Your task to perform on an android device: remove spam from my inbox in the gmail app Image 0: 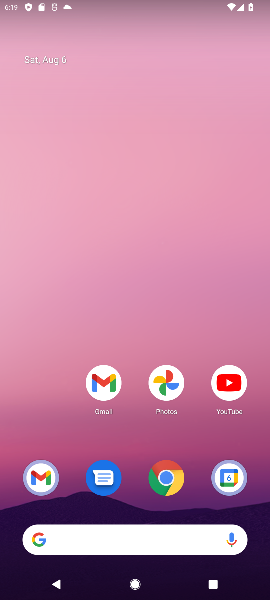
Step 0: press home button
Your task to perform on an android device: remove spam from my inbox in the gmail app Image 1: 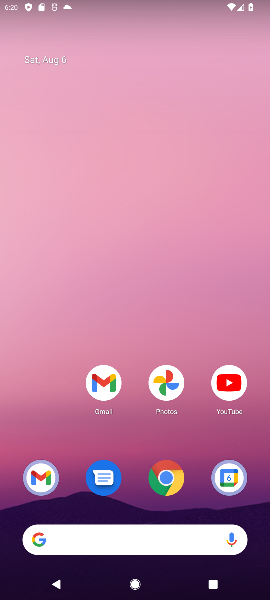
Step 1: click (138, 306)
Your task to perform on an android device: remove spam from my inbox in the gmail app Image 2: 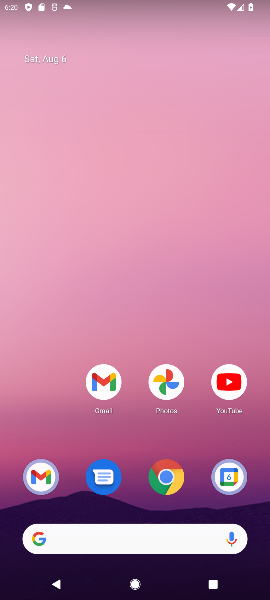
Step 2: press home button
Your task to perform on an android device: remove spam from my inbox in the gmail app Image 3: 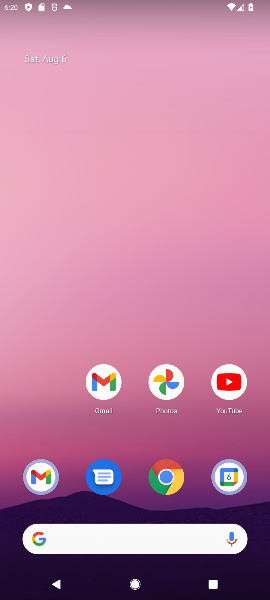
Step 3: click (209, 401)
Your task to perform on an android device: remove spam from my inbox in the gmail app Image 4: 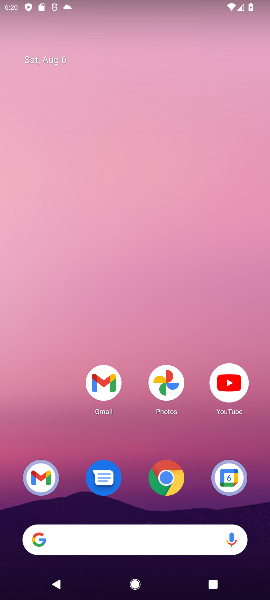
Step 4: drag from (109, 329) to (86, 0)
Your task to perform on an android device: remove spam from my inbox in the gmail app Image 5: 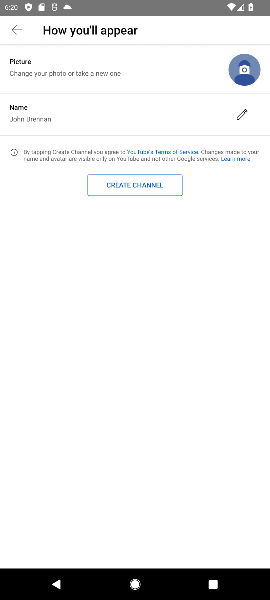
Step 5: click (12, 27)
Your task to perform on an android device: remove spam from my inbox in the gmail app Image 6: 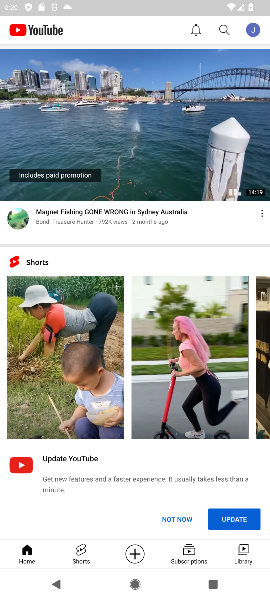
Step 6: press home button
Your task to perform on an android device: remove spam from my inbox in the gmail app Image 7: 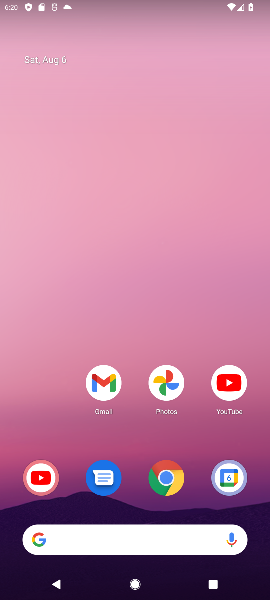
Step 7: click (49, 413)
Your task to perform on an android device: remove spam from my inbox in the gmail app Image 8: 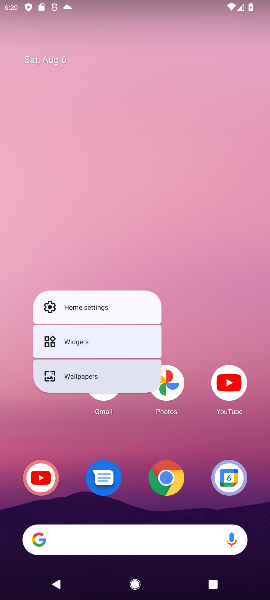
Step 8: click (105, 400)
Your task to perform on an android device: remove spam from my inbox in the gmail app Image 9: 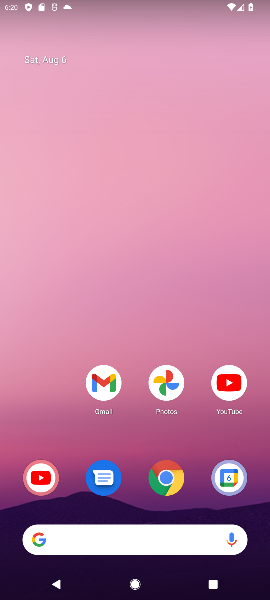
Step 9: click (104, 389)
Your task to perform on an android device: remove spam from my inbox in the gmail app Image 10: 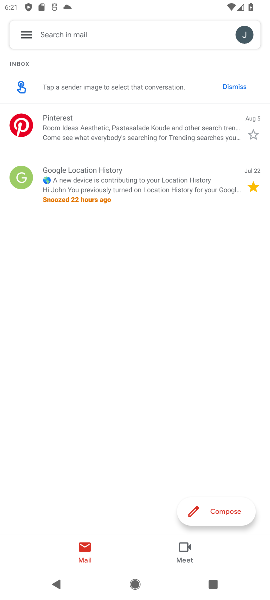
Step 10: click (16, 29)
Your task to perform on an android device: remove spam from my inbox in the gmail app Image 11: 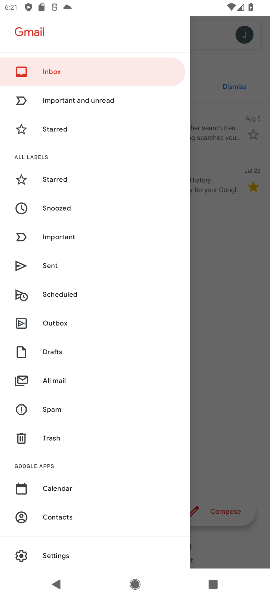
Step 11: click (230, 393)
Your task to perform on an android device: remove spam from my inbox in the gmail app Image 12: 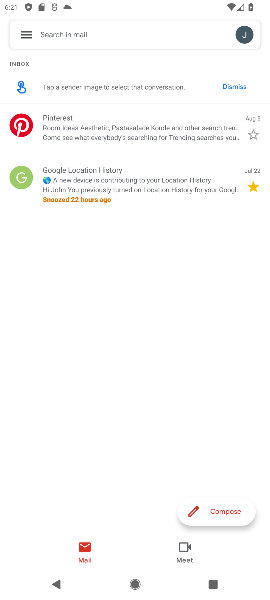
Step 12: click (24, 35)
Your task to perform on an android device: remove spam from my inbox in the gmail app Image 13: 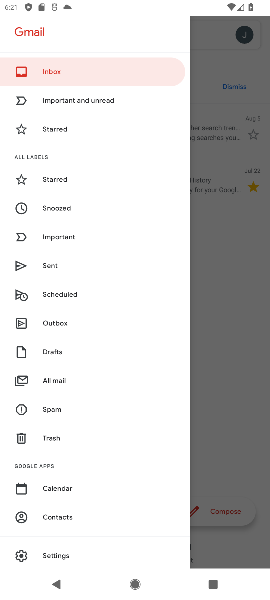
Step 13: click (46, 76)
Your task to perform on an android device: remove spam from my inbox in the gmail app Image 14: 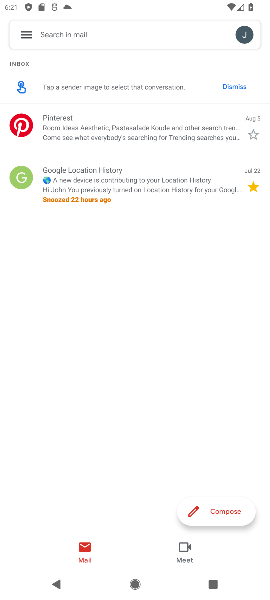
Step 14: click (244, 364)
Your task to perform on an android device: remove spam from my inbox in the gmail app Image 15: 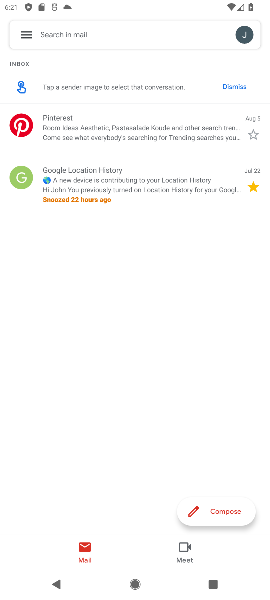
Step 15: click (24, 37)
Your task to perform on an android device: remove spam from my inbox in the gmail app Image 16: 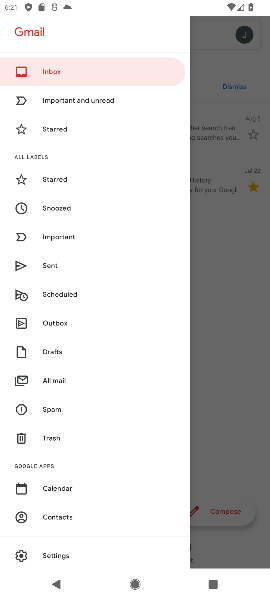
Step 16: click (246, 329)
Your task to perform on an android device: remove spam from my inbox in the gmail app Image 17: 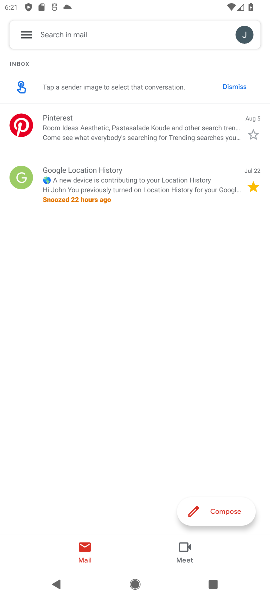
Step 17: click (163, 130)
Your task to perform on an android device: remove spam from my inbox in the gmail app Image 18: 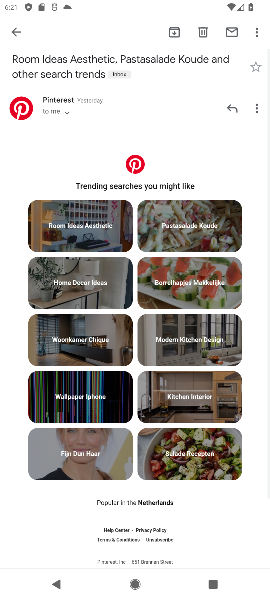
Step 18: click (252, 27)
Your task to perform on an android device: remove spam from my inbox in the gmail app Image 19: 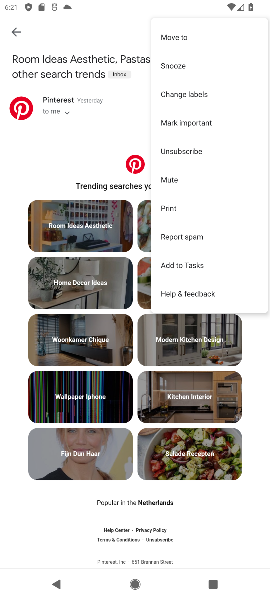
Step 19: click (193, 241)
Your task to perform on an android device: remove spam from my inbox in the gmail app Image 20: 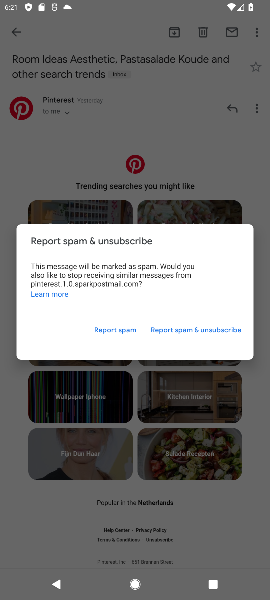
Step 20: click (217, 330)
Your task to perform on an android device: remove spam from my inbox in the gmail app Image 21: 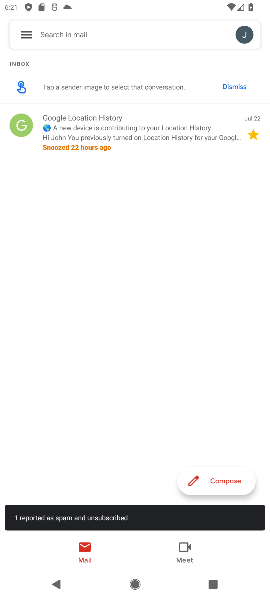
Step 21: click (147, 131)
Your task to perform on an android device: remove spam from my inbox in the gmail app Image 22: 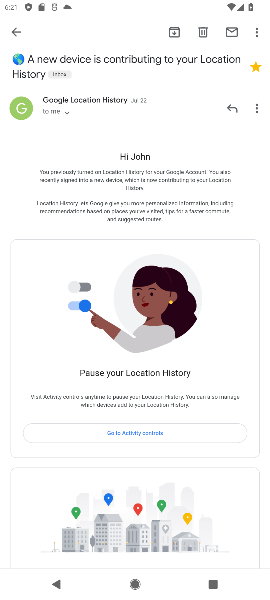
Step 22: click (258, 41)
Your task to perform on an android device: remove spam from my inbox in the gmail app Image 23: 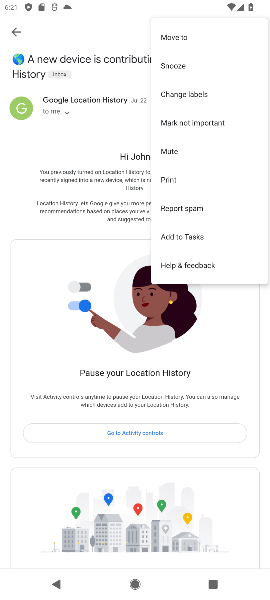
Step 23: click (205, 211)
Your task to perform on an android device: remove spam from my inbox in the gmail app Image 24: 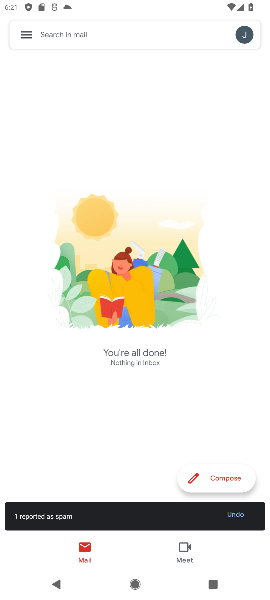
Step 24: task complete